Your task to perform on an android device: turn on javascript in the chrome app Image 0: 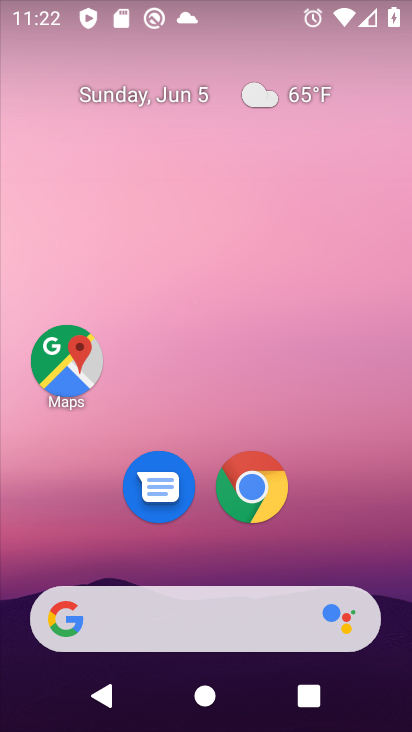
Step 0: click (248, 487)
Your task to perform on an android device: turn on javascript in the chrome app Image 1: 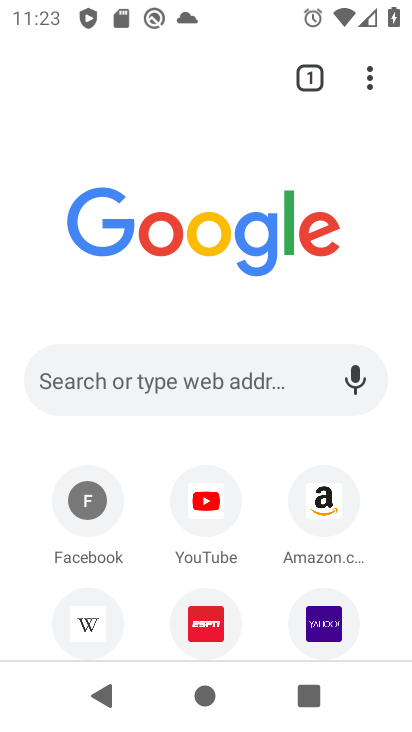
Step 1: click (370, 80)
Your task to perform on an android device: turn on javascript in the chrome app Image 2: 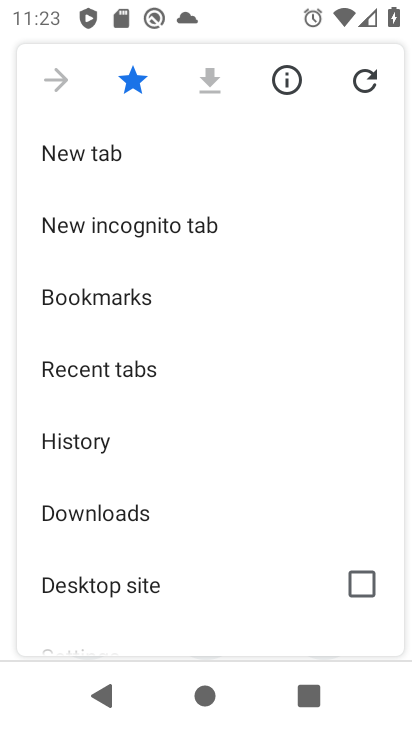
Step 2: drag from (128, 480) to (214, 343)
Your task to perform on an android device: turn on javascript in the chrome app Image 3: 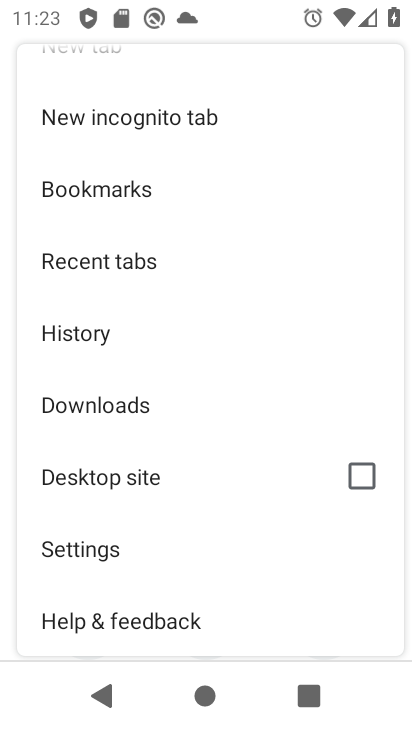
Step 3: drag from (109, 433) to (164, 314)
Your task to perform on an android device: turn on javascript in the chrome app Image 4: 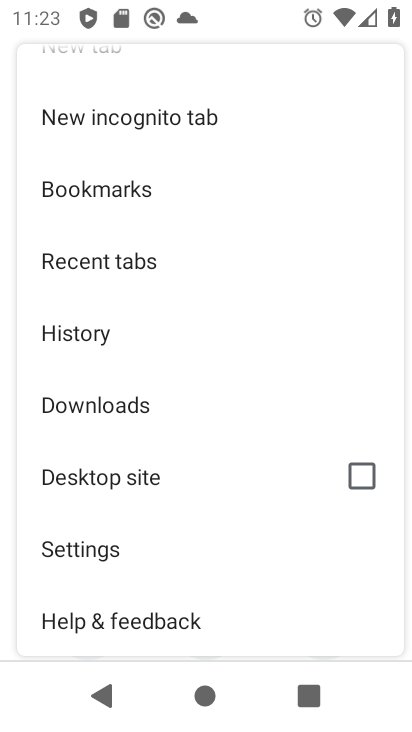
Step 4: click (89, 549)
Your task to perform on an android device: turn on javascript in the chrome app Image 5: 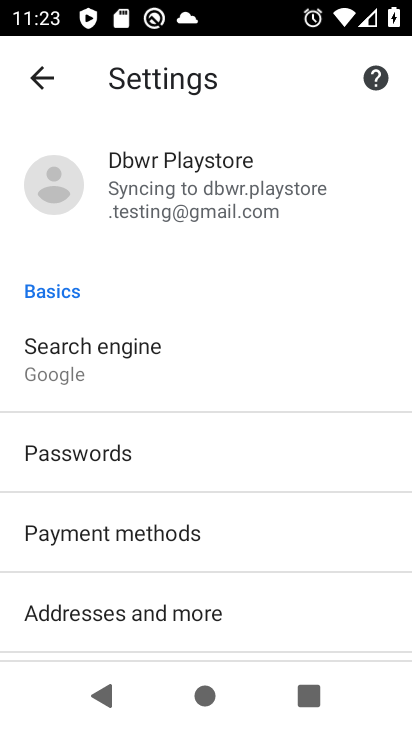
Step 5: drag from (232, 546) to (245, 345)
Your task to perform on an android device: turn on javascript in the chrome app Image 6: 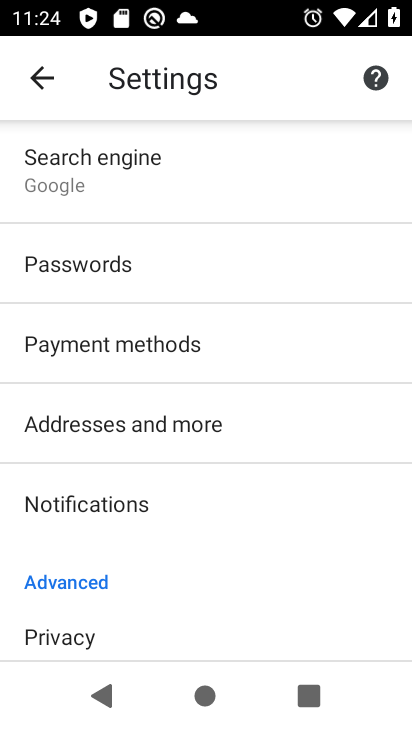
Step 6: drag from (185, 523) to (208, 391)
Your task to perform on an android device: turn on javascript in the chrome app Image 7: 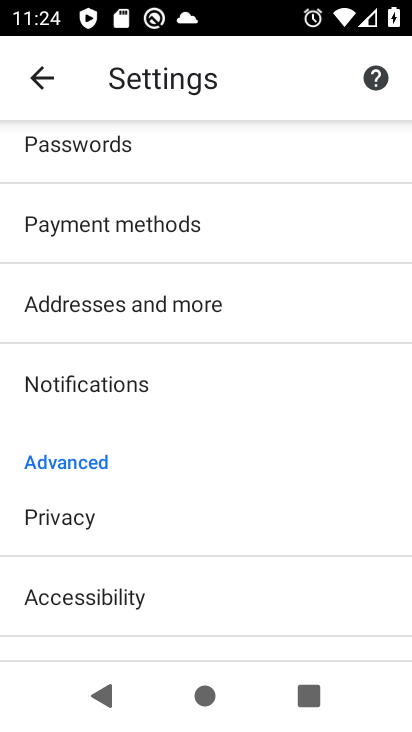
Step 7: drag from (143, 505) to (205, 389)
Your task to perform on an android device: turn on javascript in the chrome app Image 8: 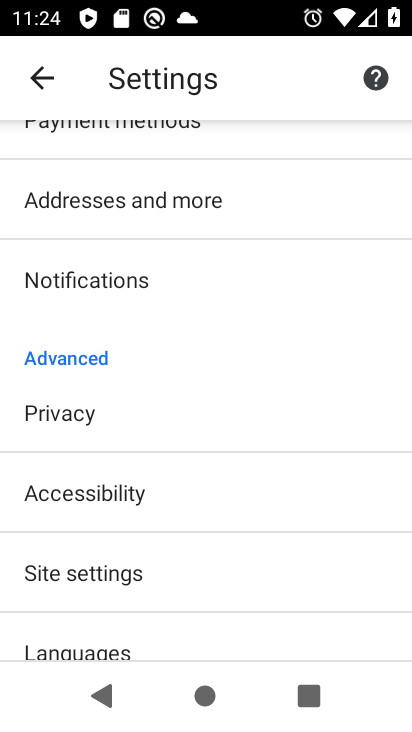
Step 8: drag from (209, 519) to (259, 401)
Your task to perform on an android device: turn on javascript in the chrome app Image 9: 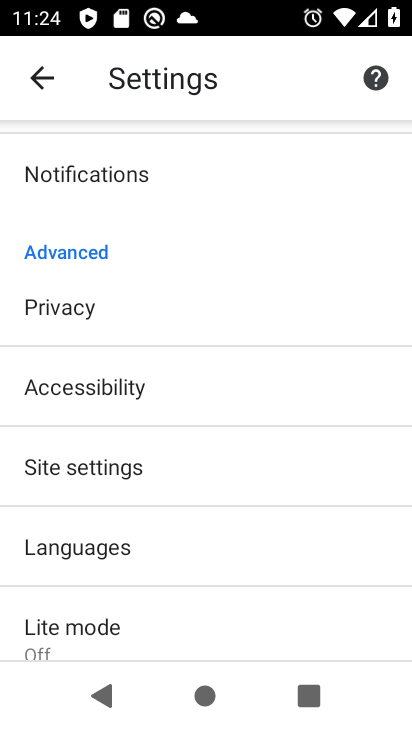
Step 9: drag from (194, 476) to (262, 380)
Your task to perform on an android device: turn on javascript in the chrome app Image 10: 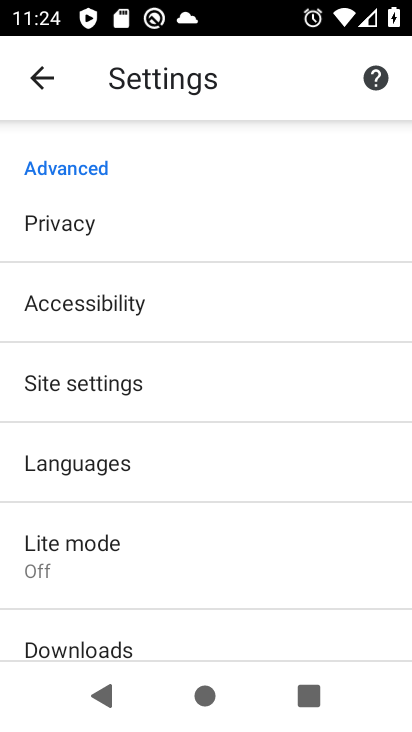
Step 10: drag from (189, 464) to (246, 341)
Your task to perform on an android device: turn on javascript in the chrome app Image 11: 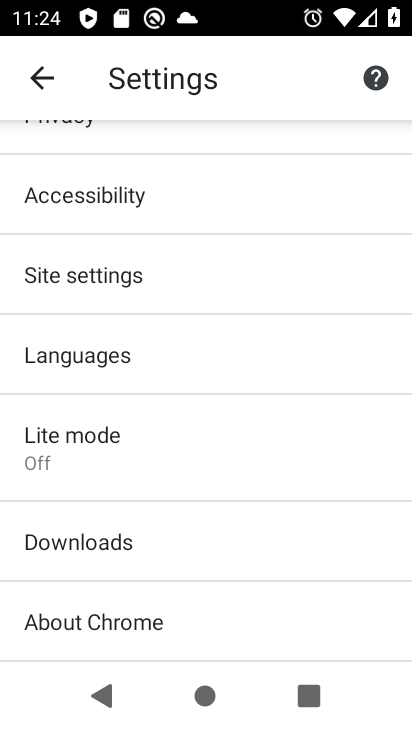
Step 11: click (119, 280)
Your task to perform on an android device: turn on javascript in the chrome app Image 12: 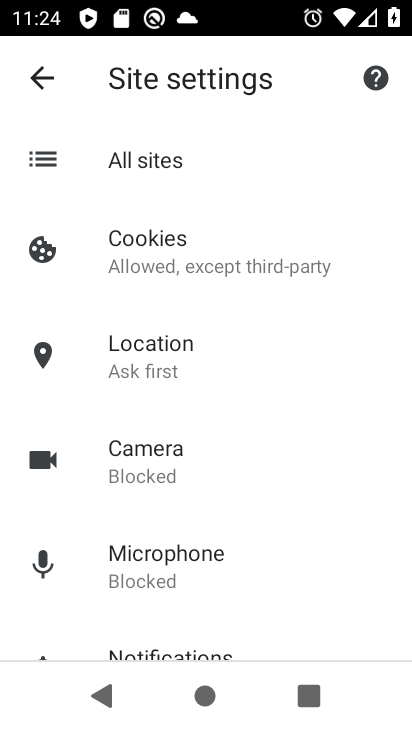
Step 12: drag from (190, 497) to (208, 414)
Your task to perform on an android device: turn on javascript in the chrome app Image 13: 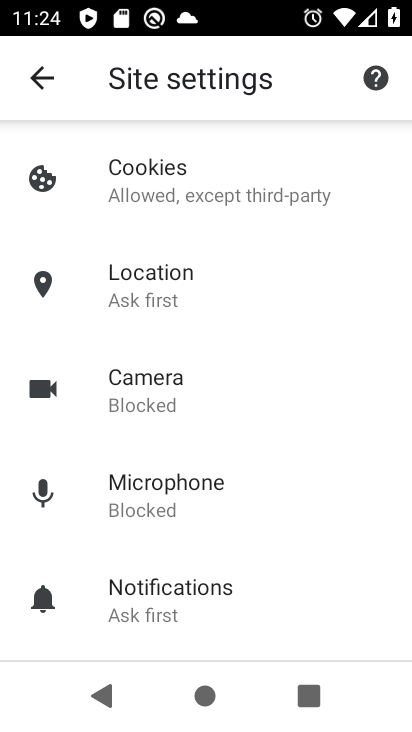
Step 13: drag from (204, 525) to (280, 395)
Your task to perform on an android device: turn on javascript in the chrome app Image 14: 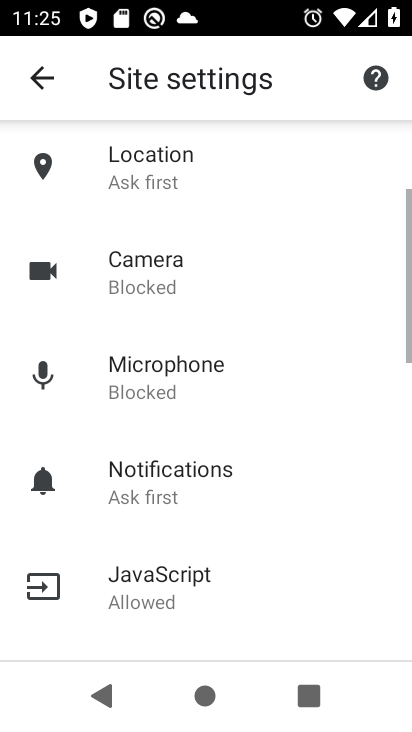
Step 14: drag from (211, 569) to (268, 484)
Your task to perform on an android device: turn on javascript in the chrome app Image 15: 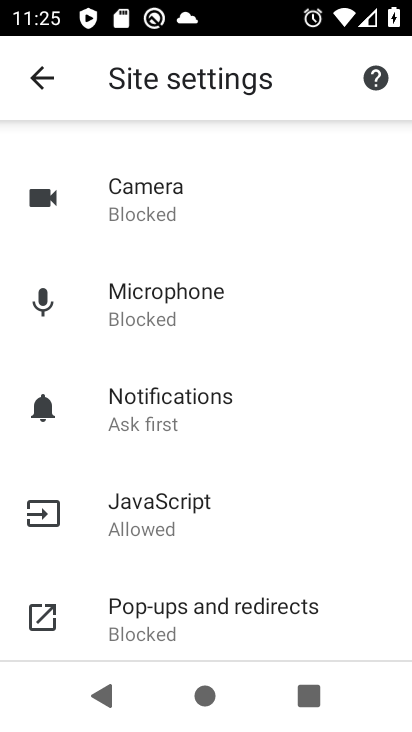
Step 15: click (239, 490)
Your task to perform on an android device: turn on javascript in the chrome app Image 16: 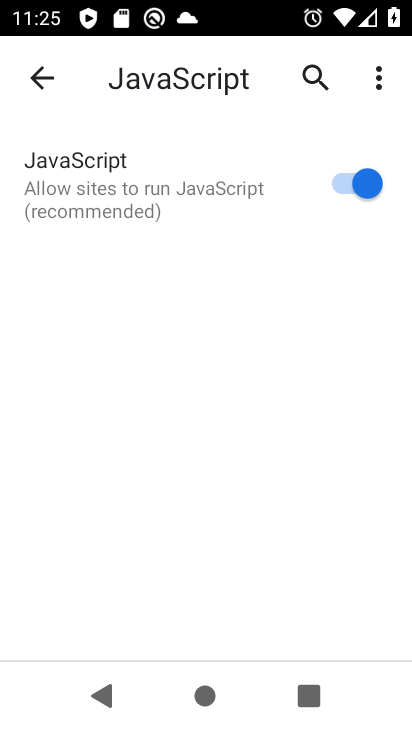
Step 16: task complete